Your task to perform on an android device: Open Maps and search for coffee Image 0: 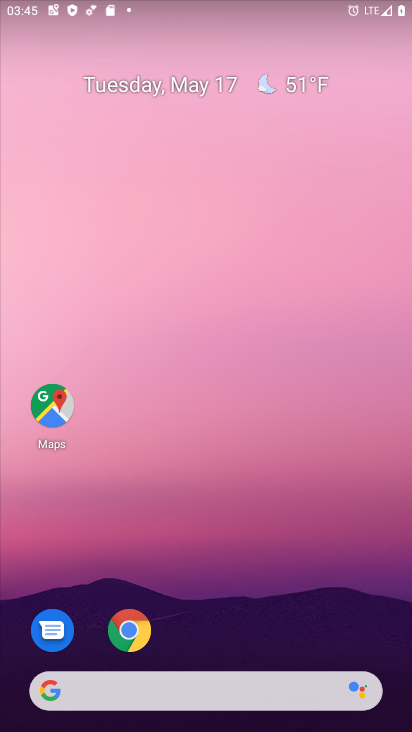
Step 0: drag from (181, 635) to (287, 23)
Your task to perform on an android device: Open Maps and search for coffee Image 1: 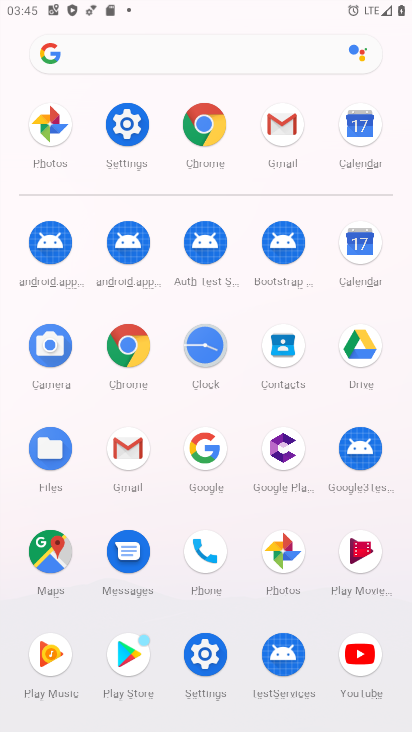
Step 1: press back button
Your task to perform on an android device: Open Maps and search for coffee Image 2: 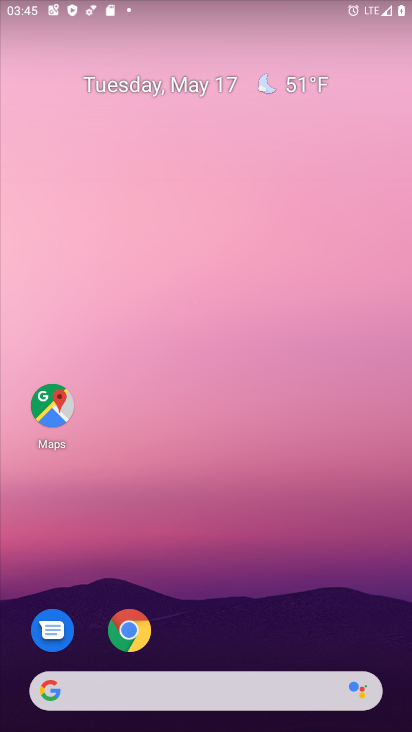
Step 2: click (38, 409)
Your task to perform on an android device: Open Maps and search for coffee Image 3: 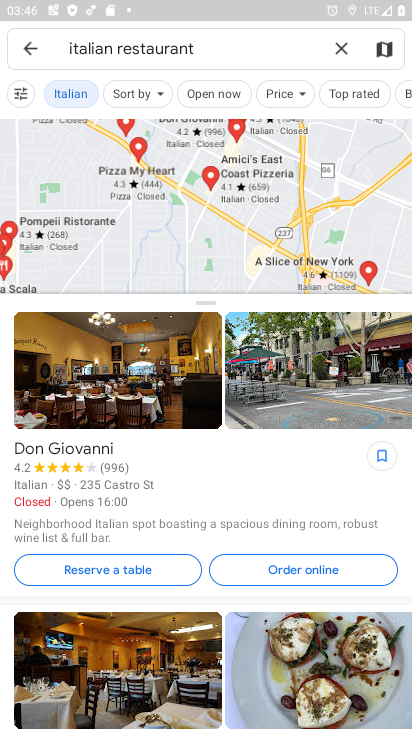
Step 3: click (22, 49)
Your task to perform on an android device: Open Maps and search for coffee Image 4: 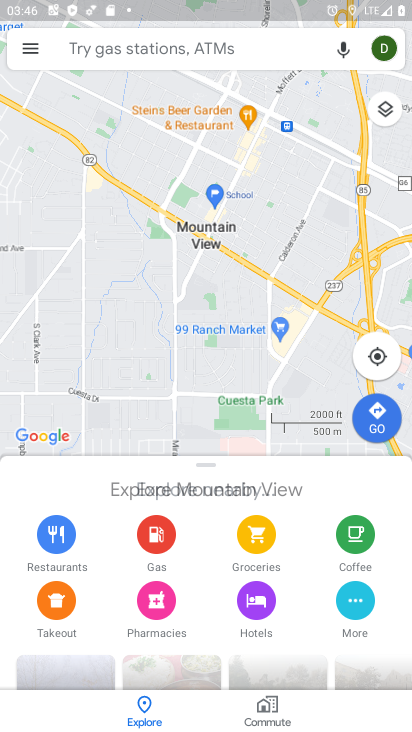
Step 4: click (108, 43)
Your task to perform on an android device: Open Maps and search for coffee Image 5: 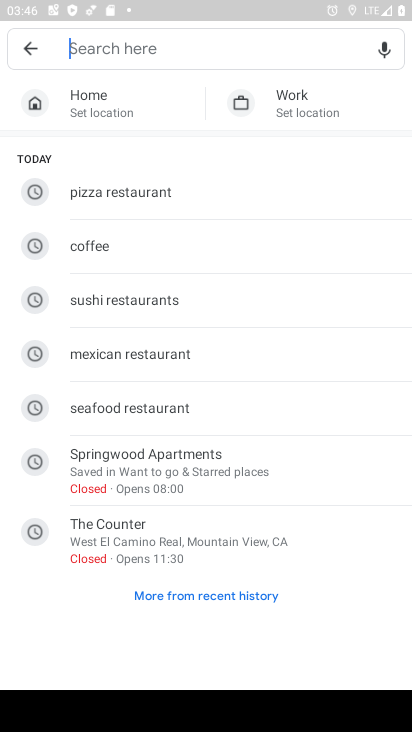
Step 5: click (88, 239)
Your task to perform on an android device: Open Maps and search for coffee Image 6: 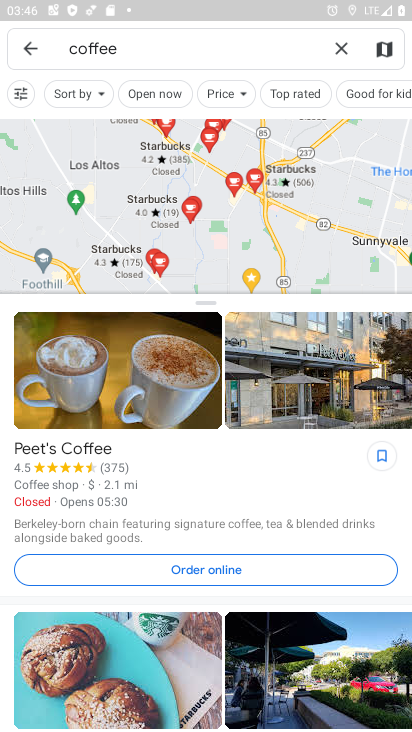
Step 6: task complete